Your task to perform on an android device: empty trash in the gmail app Image 0: 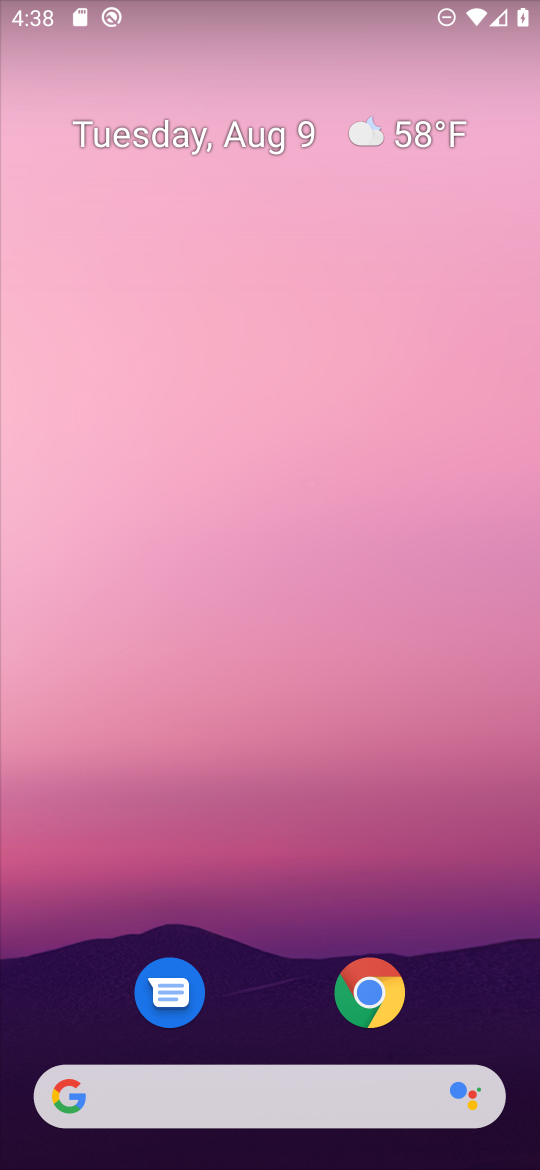
Step 0: drag from (412, 1086) to (411, 20)
Your task to perform on an android device: empty trash in the gmail app Image 1: 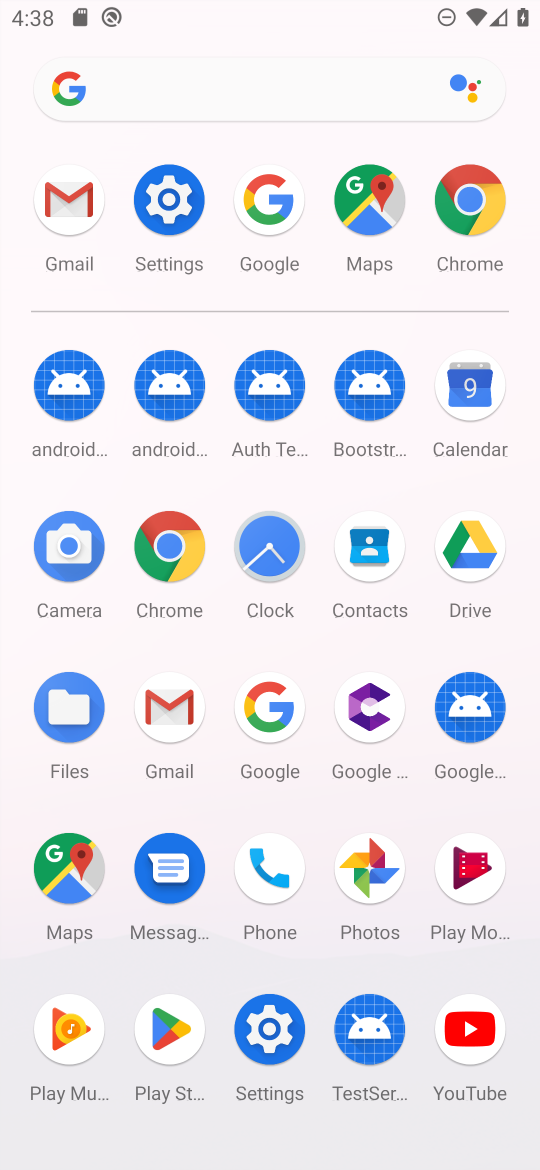
Step 1: click (173, 732)
Your task to perform on an android device: empty trash in the gmail app Image 2: 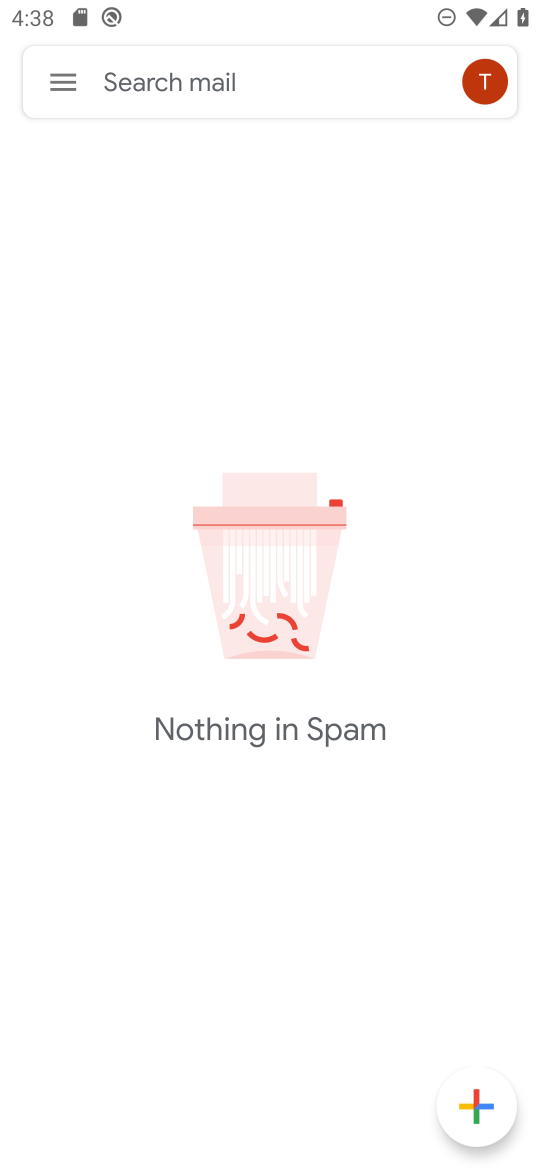
Step 2: click (60, 73)
Your task to perform on an android device: empty trash in the gmail app Image 3: 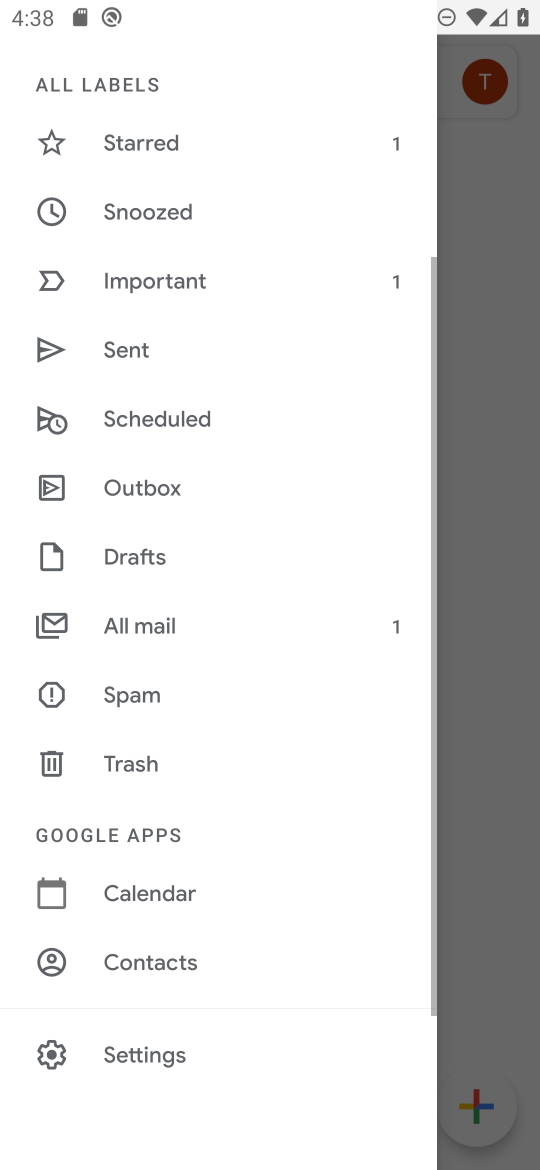
Step 3: click (138, 760)
Your task to perform on an android device: empty trash in the gmail app Image 4: 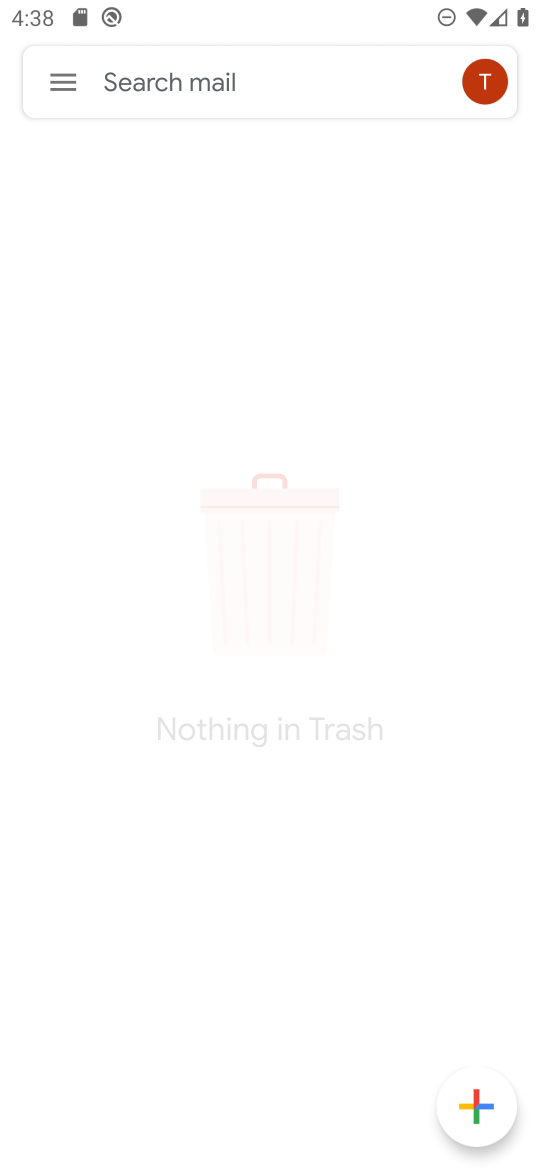
Step 4: task complete